Your task to perform on an android device: open app "Google Chat" (install if not already installed) Image 0: 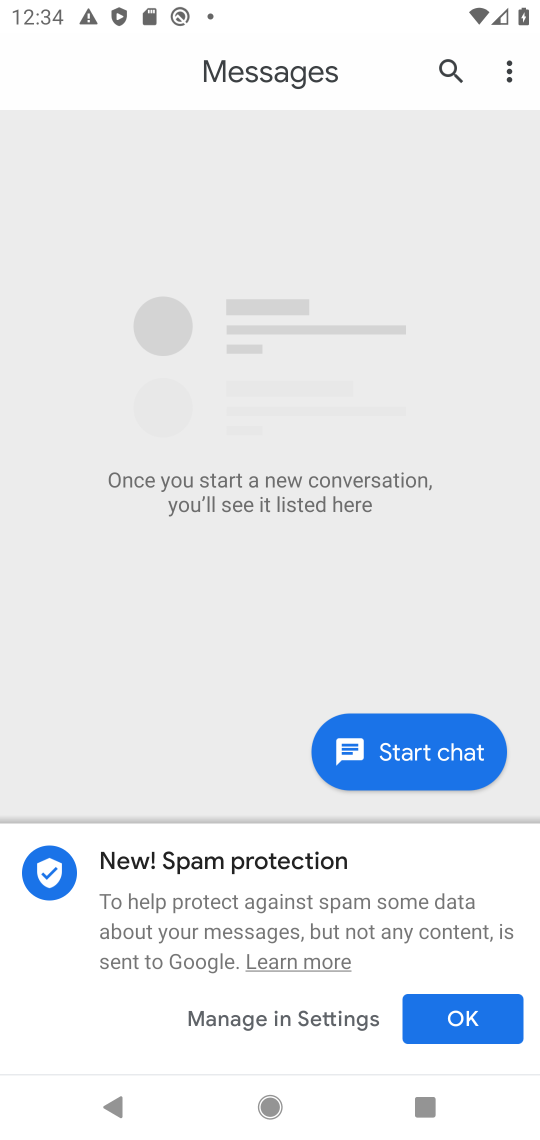
Step 0: press home button
Your task to perform on an android device: open app "Google Chat" (install if not already installed) Image 1: 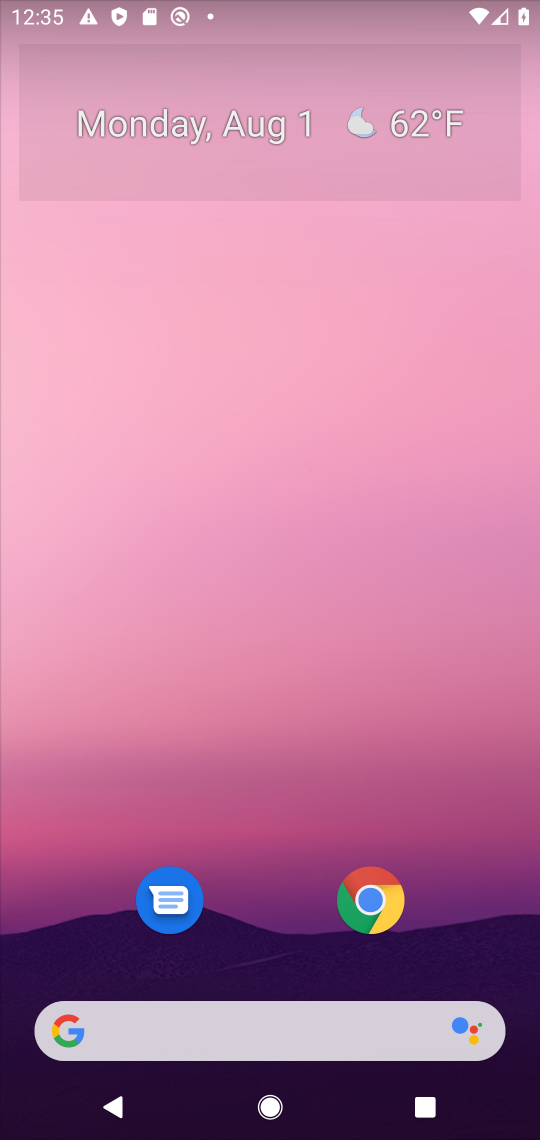
Step 1: drag from (205, 1010) to (234, 82)
Your task to perform on an android device: open app "Google Chat" (install if not already installed) Image 2: 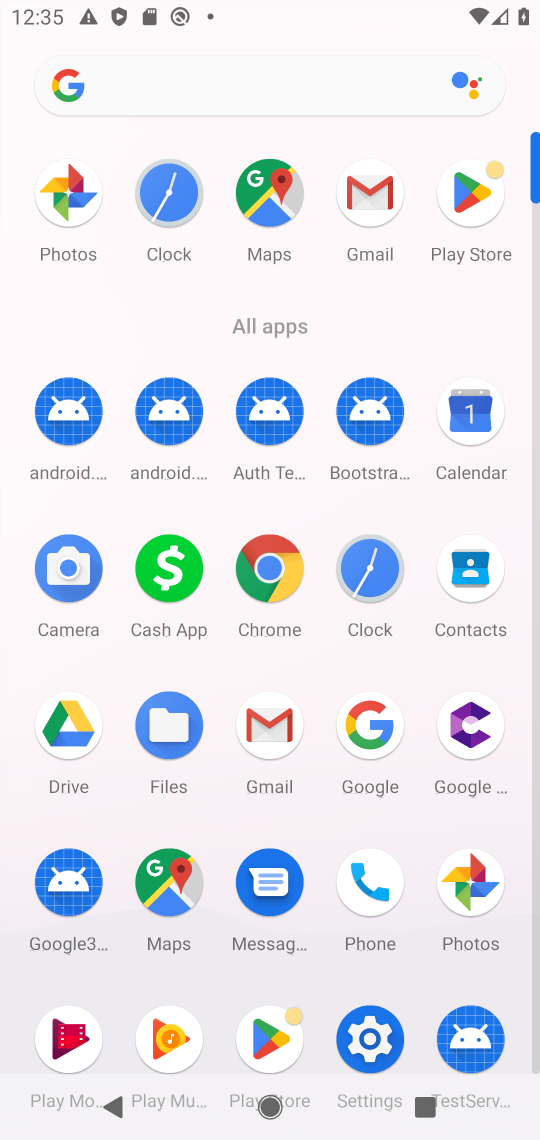
Step 2: click (468, 199)
Your task to perform on an android device: open app "Google Chat" (install if not already installed) Image 3: 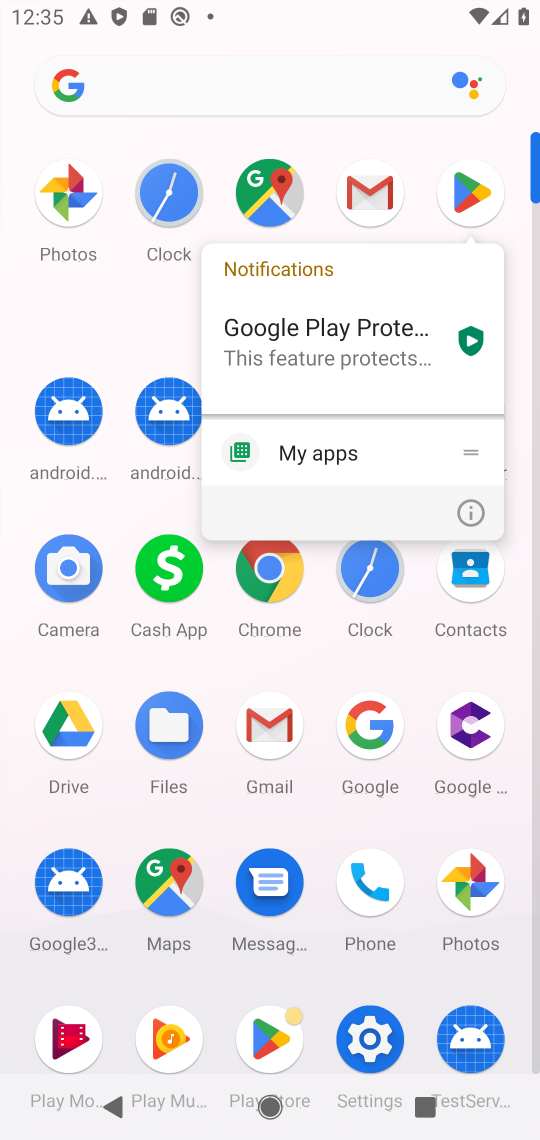
Step 3: click (462, 198)
Your task to perform on an android device: open app "Google Chat" (install if not already installed) Image 4: 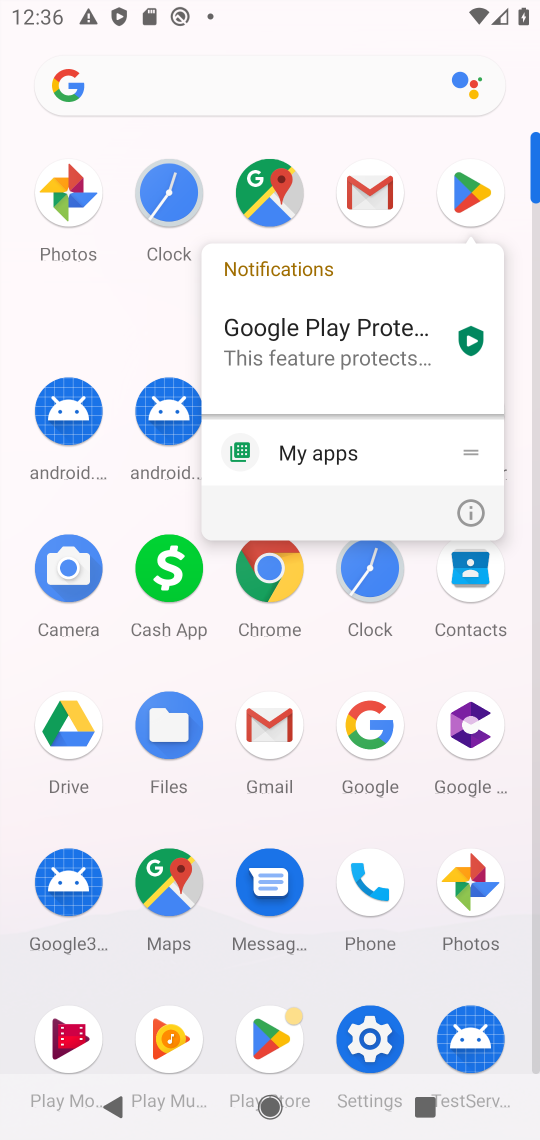
Step 4: click (473, 181)
Your task to perform on an android device: open app "Google Chat" (install if not already installed) Image 5: 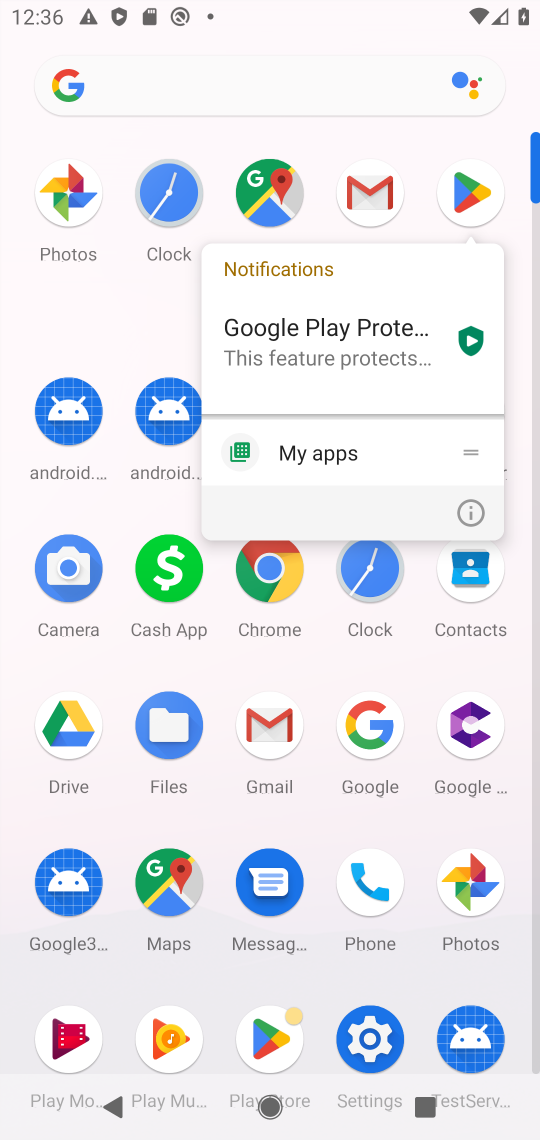
Step 5: click (279, 1044)
Your task to perform on an android device: open app "Google Chat" (install if not already installed) Image 6: 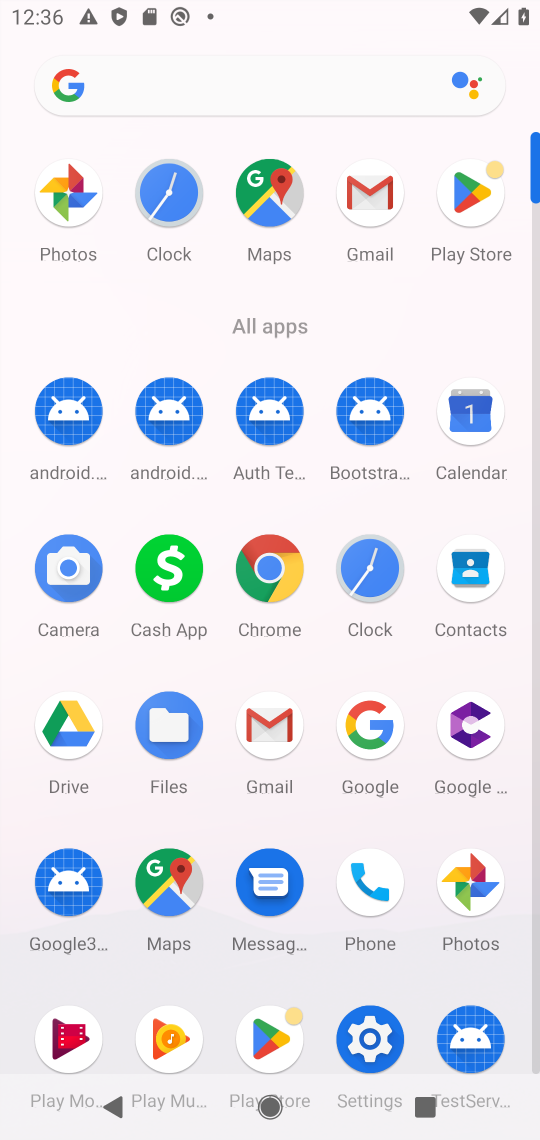
Step 6: click (276, 1031)
Your task to perform on an android device: open app "Google Chat" (install if not already installed) Image 7: 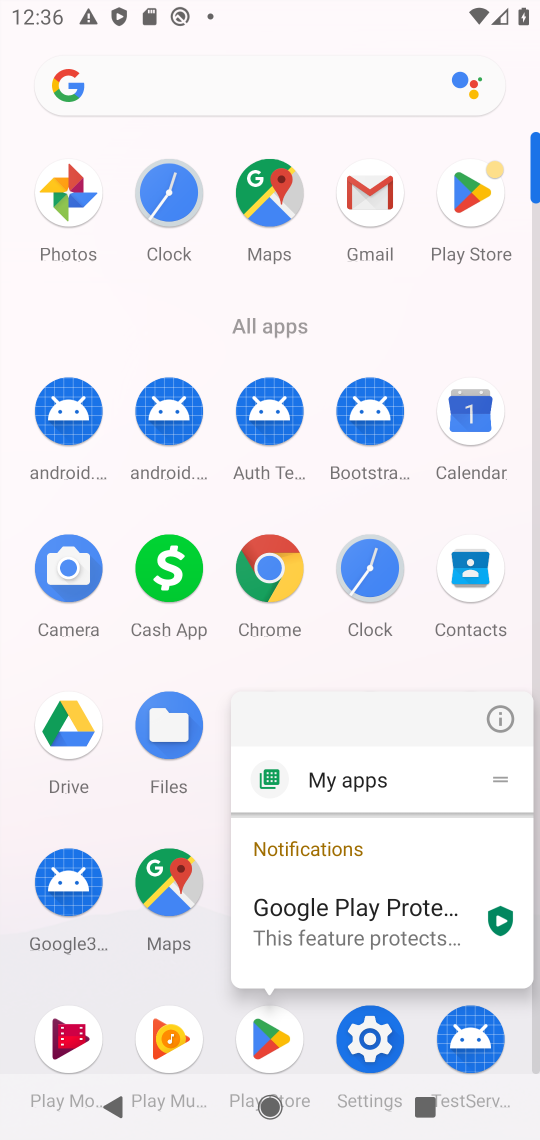
Step 7: click (276, 1028)
Your task to perform on an android device: open app "Google Chat" (install if not already installed) Image 8: 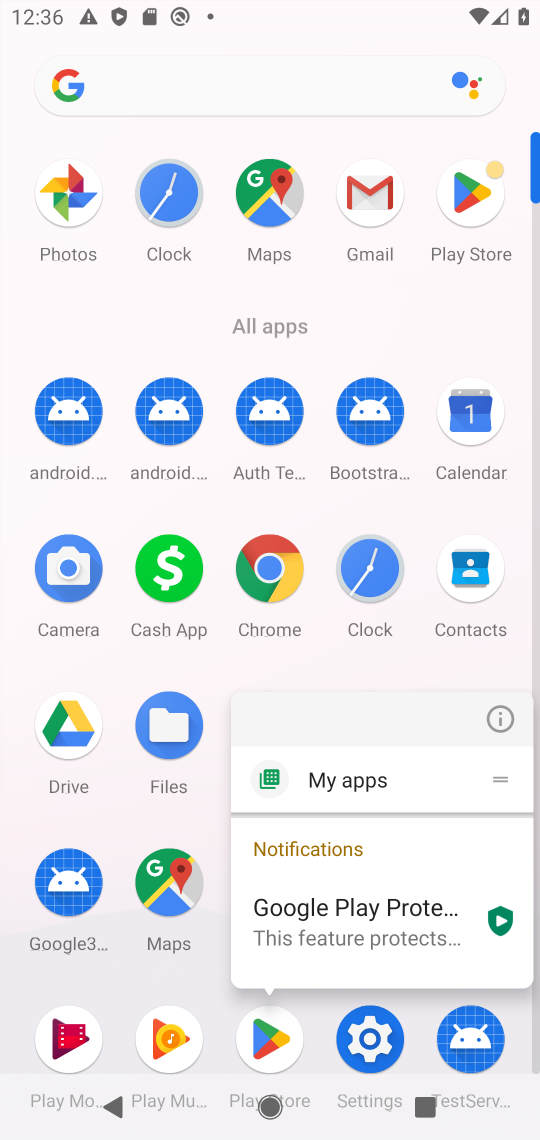
Step 8: click (276, 1028)
Your task to perform on an android device: open app "Google Chat" (install if not already installed) Image 9: 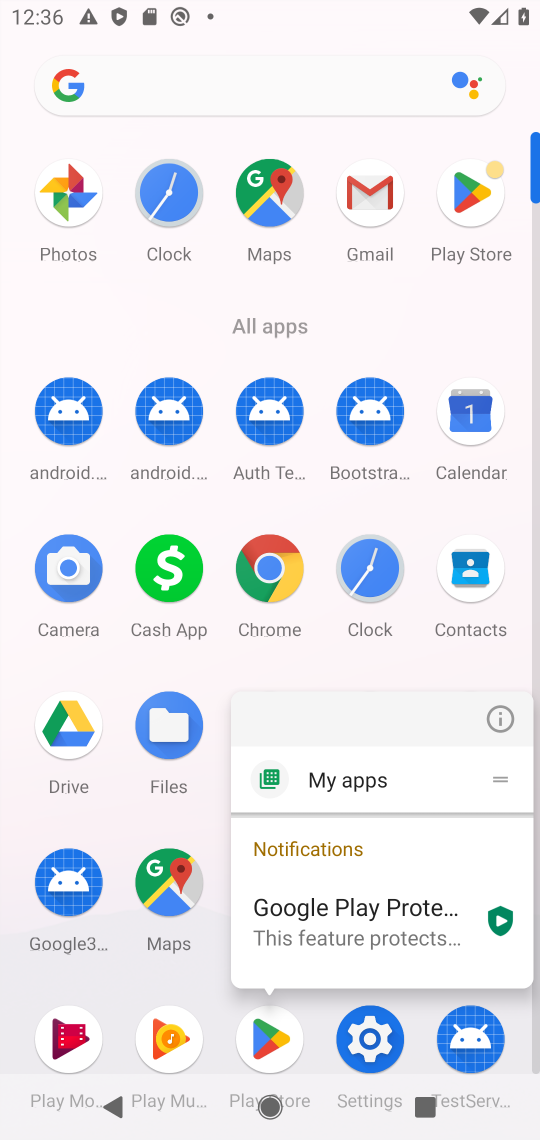
Step 9: click (276, 1028)
Your task to perform on an android device: open app "Google Chat" (install if not already installed) Image 10: 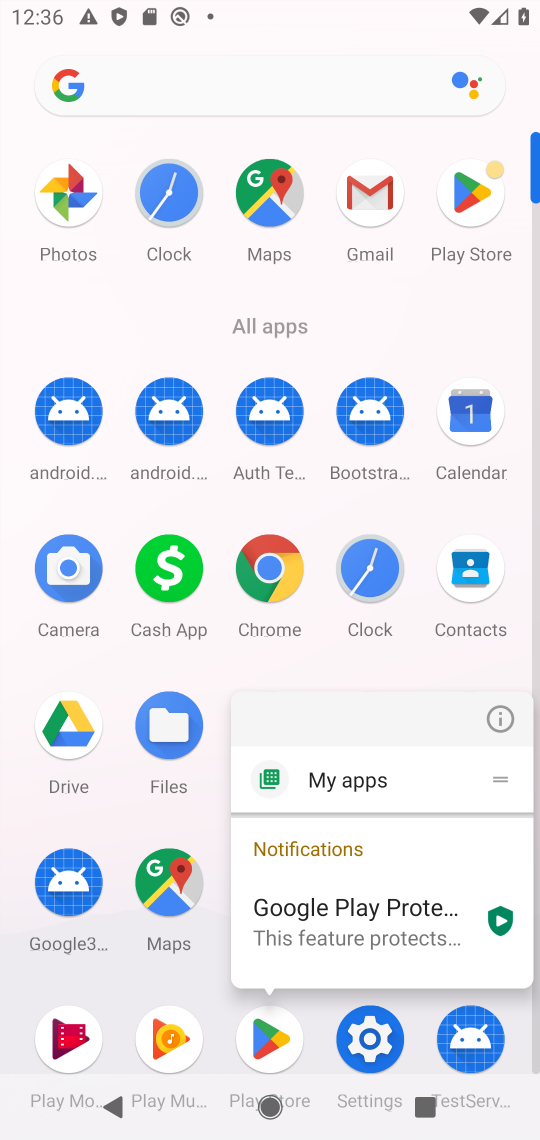
Step 10: click (272, 1037)
Your task to perform on an android device: open app "Google Chat" (install if not already installed) Image 11: 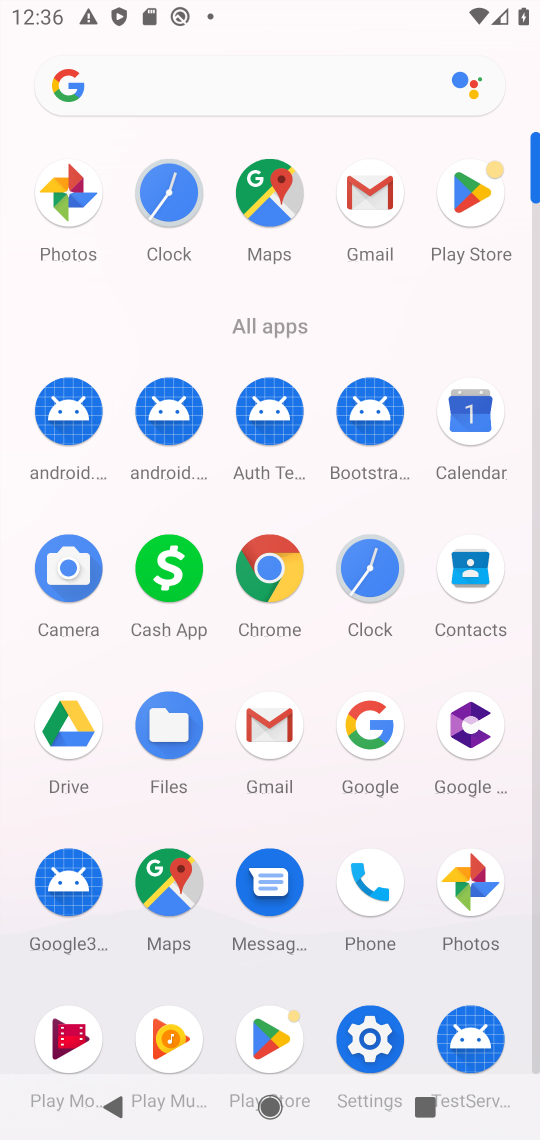
Step 11: click (272, 1037)
Your task to perform on an android device: open app "Google Chat" (install if not already installed) Image 12: 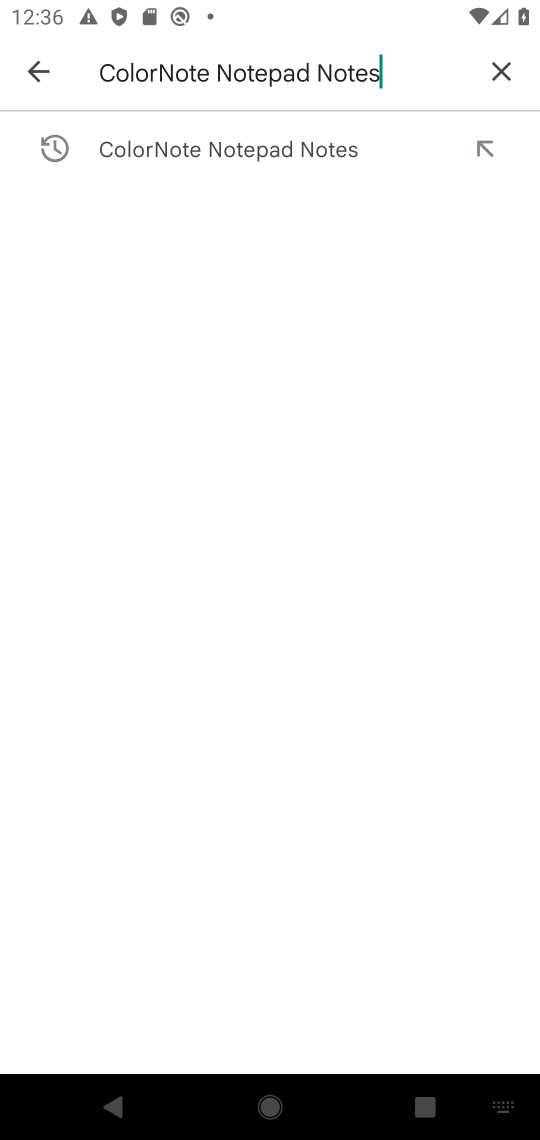
Step 12: click (484, 46)
Your task to perform on an android device: open app "Google Chat" (install if not already installed) Image 13: 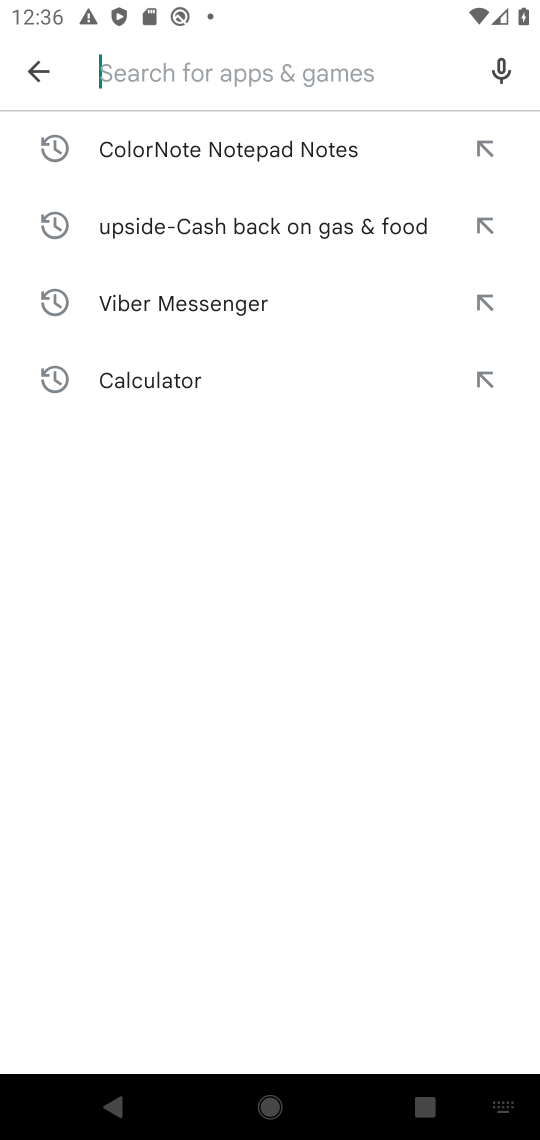
Step 13: type "google chat "
Your task to perform on an android device: open app "Google Chat" (install if not already installed) Image 14: 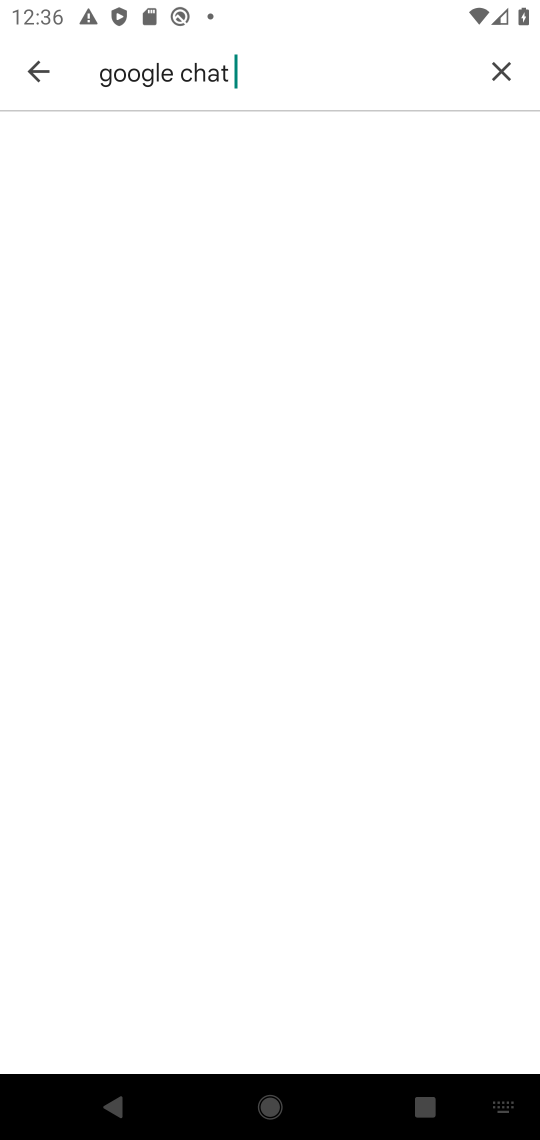
Step 14: type ""
Your task to perform on an android device: open app "Google Chat" (install if not already installed) Image 15: 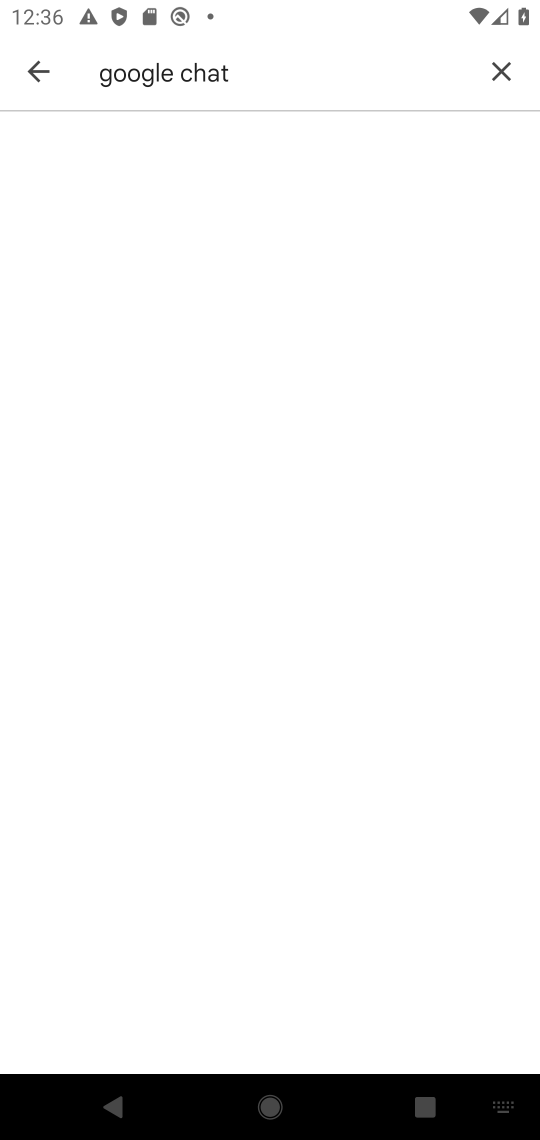
Step 15: press enter
Your task to perform on an android device: open app "Google Chat" (install if not already installed) Image 16: 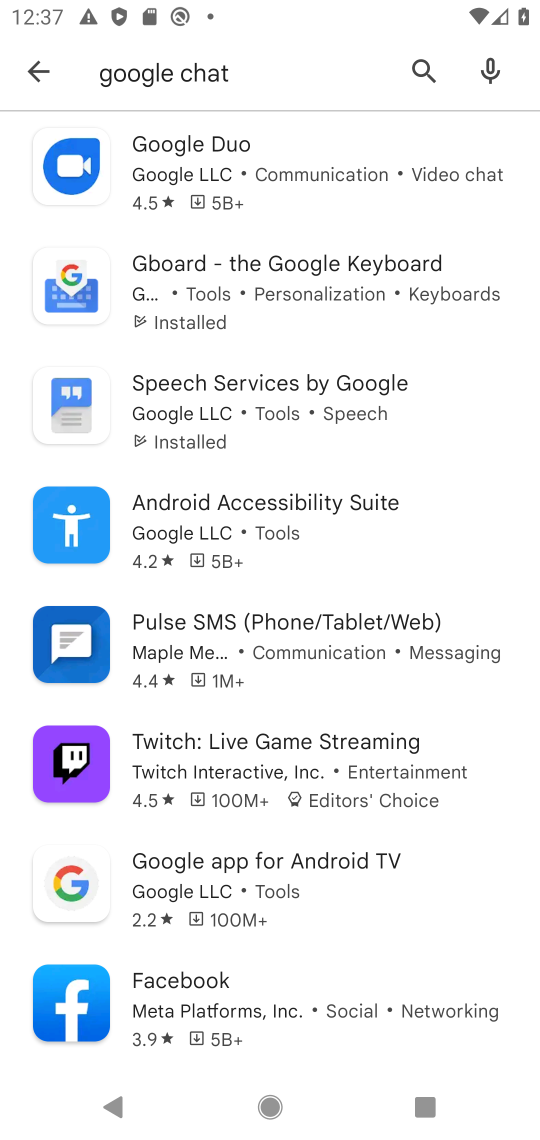
Step 16: click (297, 74)
Your task to perform on an android device: open app "Google Chat" (install if not already installed) Image 17: 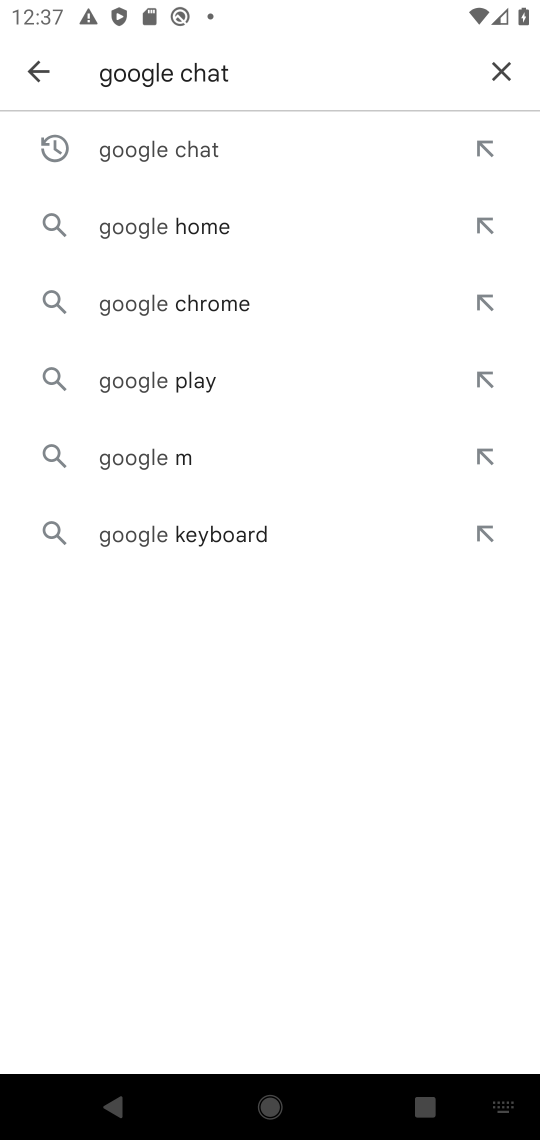
Step 17: click (202, 161)
Your task to perform on an android device: open app "Google Chat" (install if not already installed) Image 18: 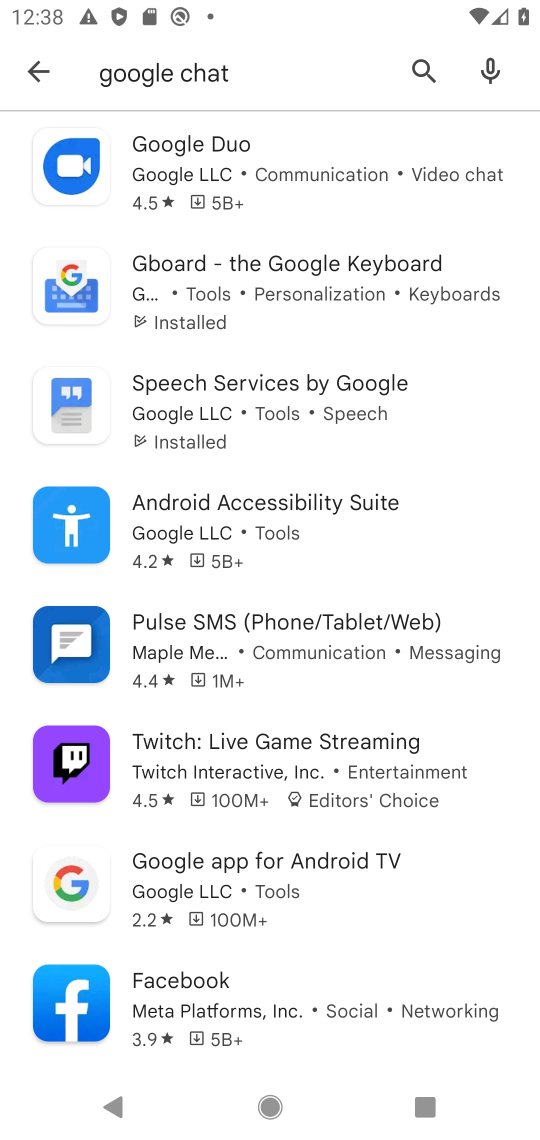
Step 18: task complete